Your task to perform on an android device: turn on improve location accuracy Image 0: 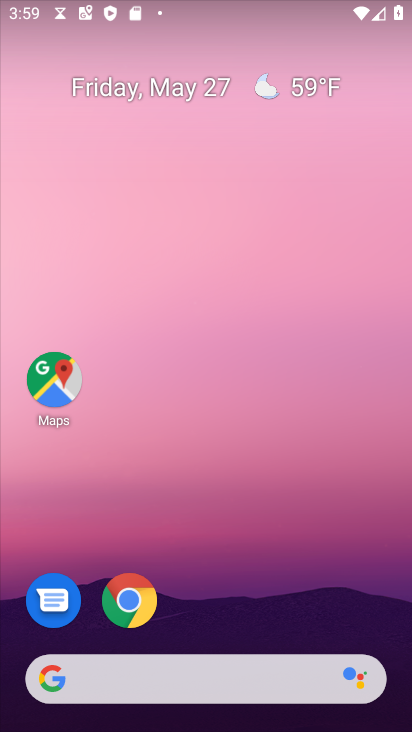
Step 0: drag from (250, 566) to (264, 57)
Your task to perform on an android device: turn on improve location accuracy Image 1: 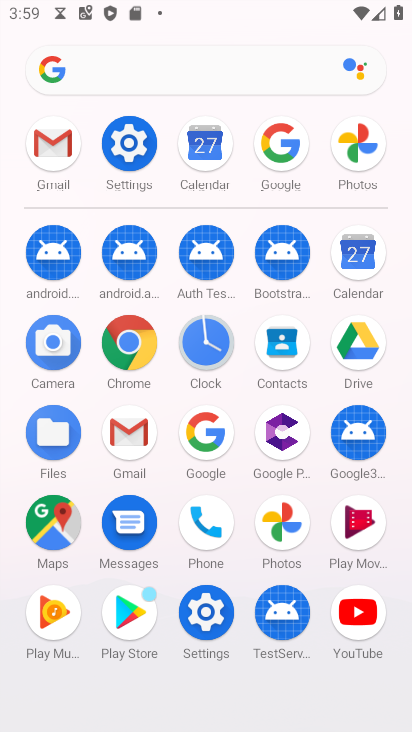
Step 1: click (127, 146)
Your task to perform on an android device: turn on improve location accuracy Image 2: 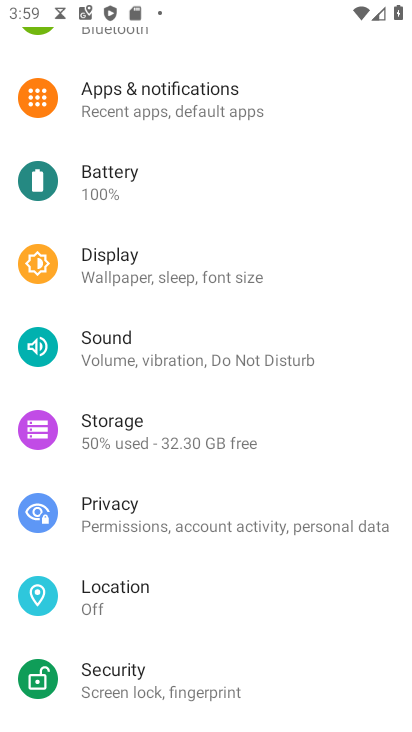
Step 2: drag from (164, 480) to (231, 367)
Your task to perform on an android device: turn on improve location accuracy Image 3: 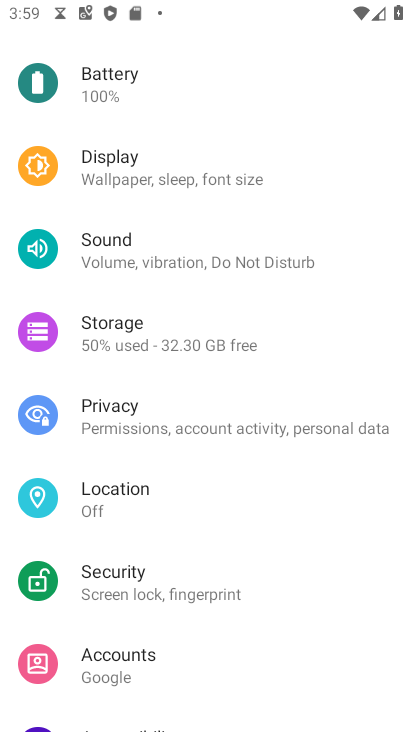
Step 3: click (136, 503)
Your task to perform on an android device: turn on improve location accuracy Image 4: 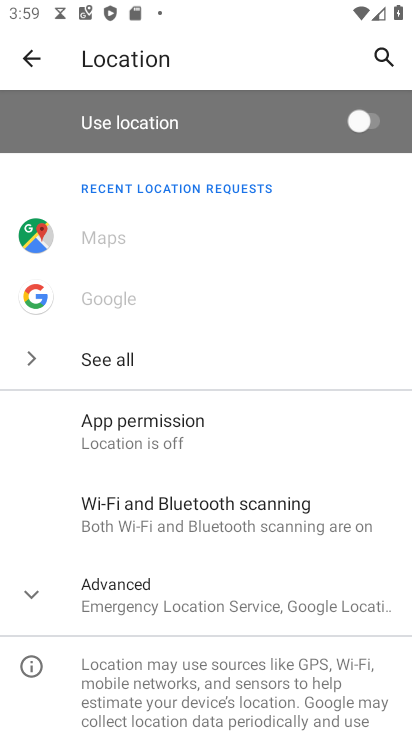
Step 4: drag from (180, 553) to (255, 449)
Your task to perform on an android device: turn on improve location accuracy Image 5: 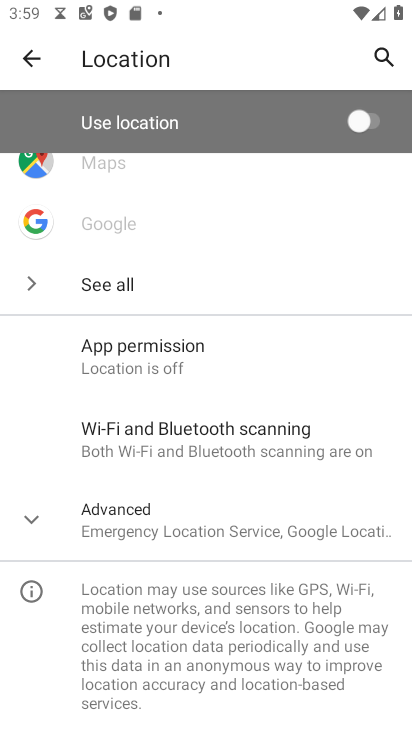
Step 5: click (190, 516)
Your task to perform on an android device: turn on improve location accuracy Image 6: 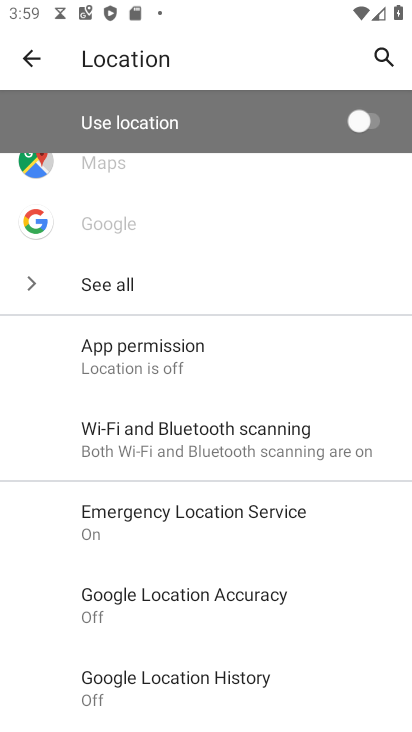
Step 6: click (184, 595)
Your task to perform on an android device: turn on improve location accuracy Image 7: 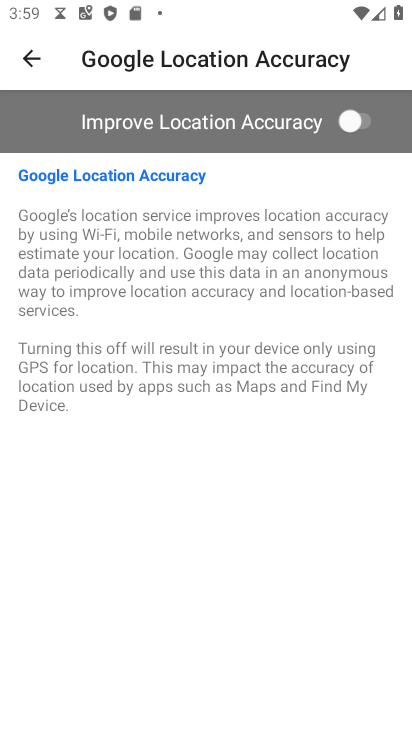
Step 7: click (348, 118)
Your task to perform on an android device: turn on improve location accuracy Image 8: 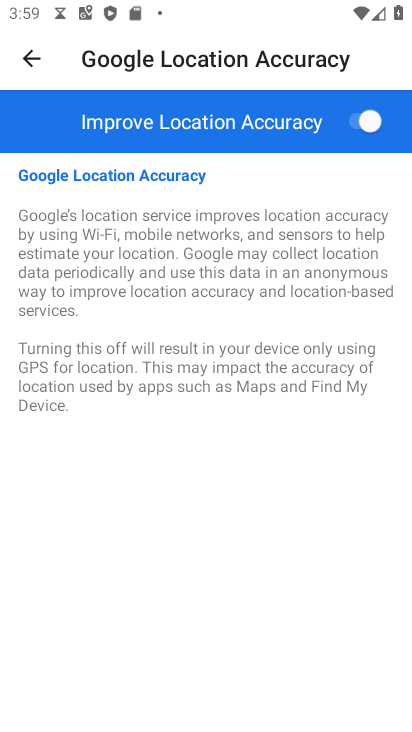
Step 8: task complete